Your task to perform on an android device: What's the weather today? Image 0: 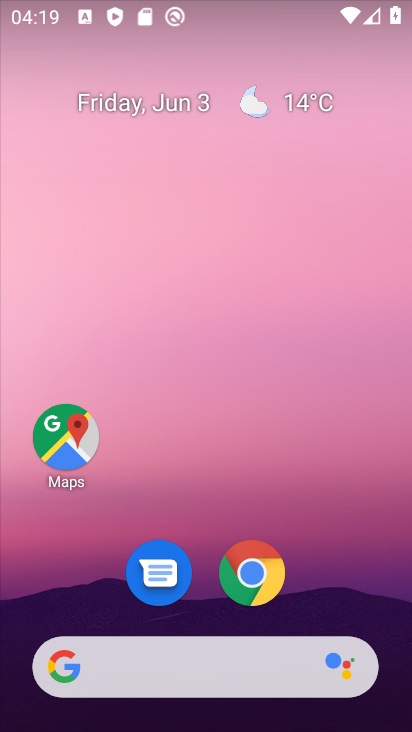
Step 0: drag from (232, 669) to (216, 173)
Your task to perform on an android device: What's the weather today? Image 1: 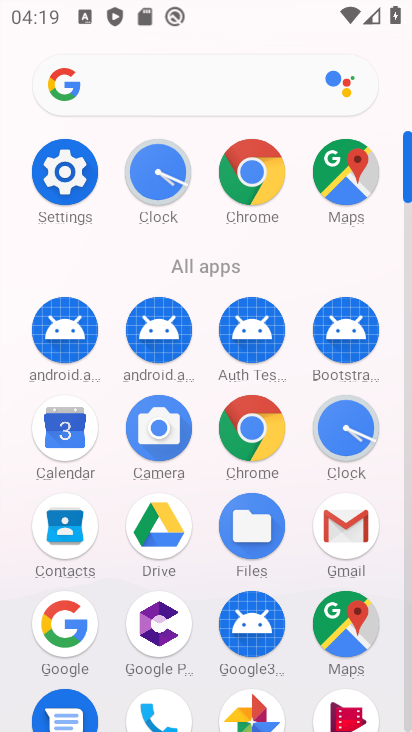
Step 1: click (73, 435)
Your task to perform on an android device: What's the weather today? Image 2: 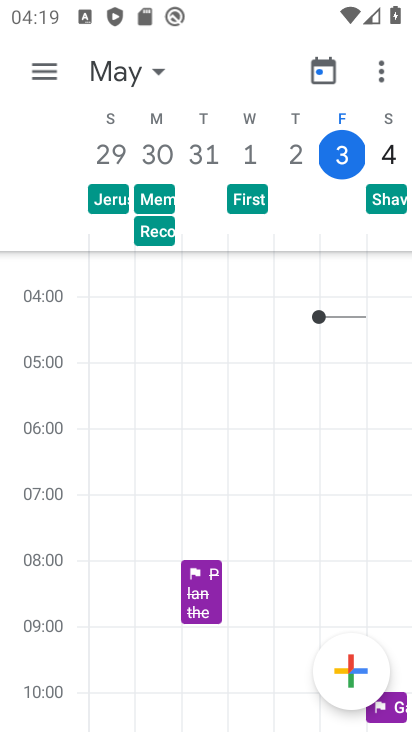
Step 2: click (159, 72)
Your task to perform on an android device: What's the weather today? Image 3: 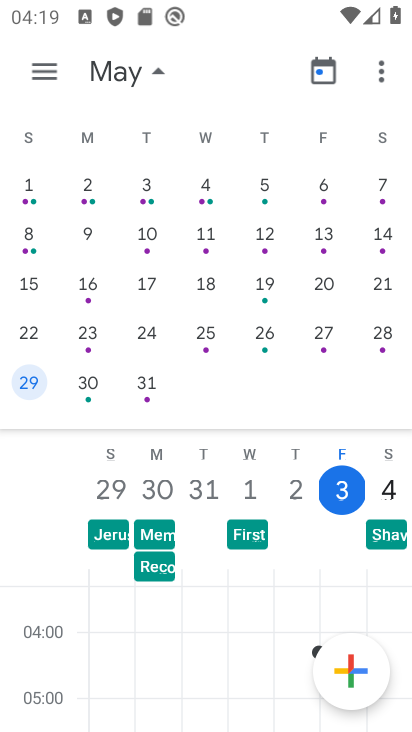
Step 3: drag from (372, 292) to (12, 285)
Your task to perform on an android device: What's the weather today? Image 4: 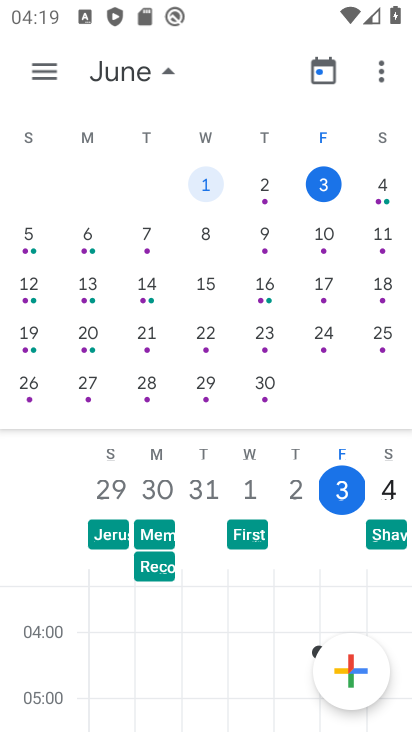
Step 4: press home button
Your task to perform on an android device: What's the weather today? Image 5: 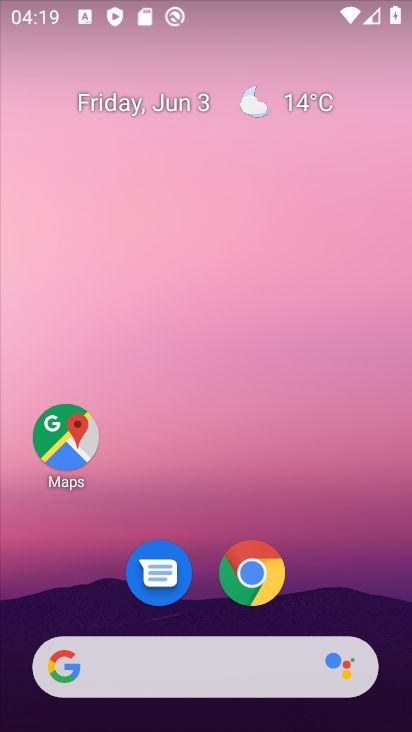
Step 5: drag from (21, 241) to (410, 200)
Your task to perform on an android device: What's the weather today? Image 6: 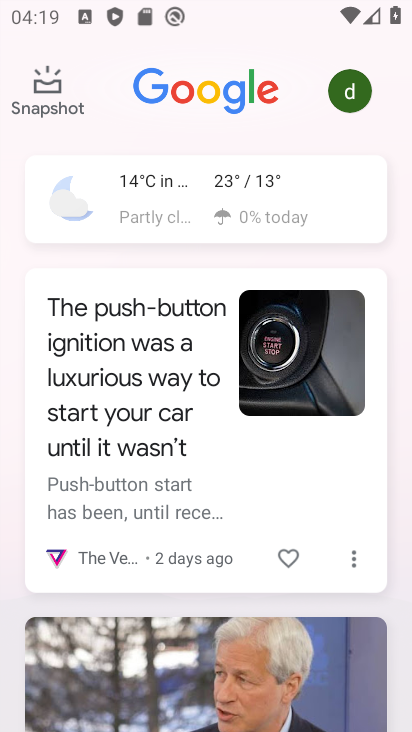
Step 6: click (259, 168)
Your task to perform on an android device: What's the weather today? Image 7: 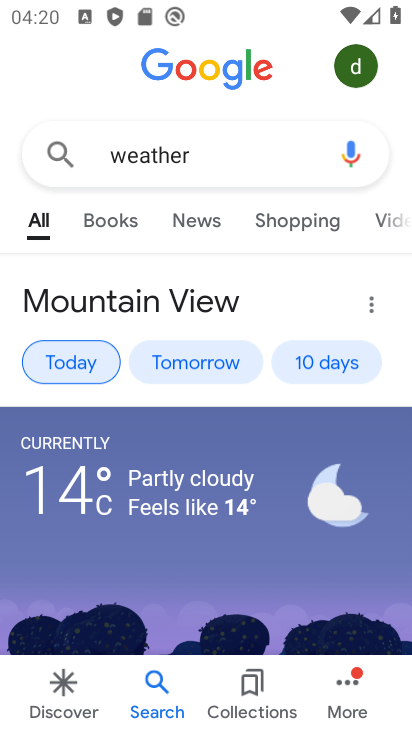
Step 7: task complete